Your task to perform on an android device: Go to Yahoo.com Image 0: 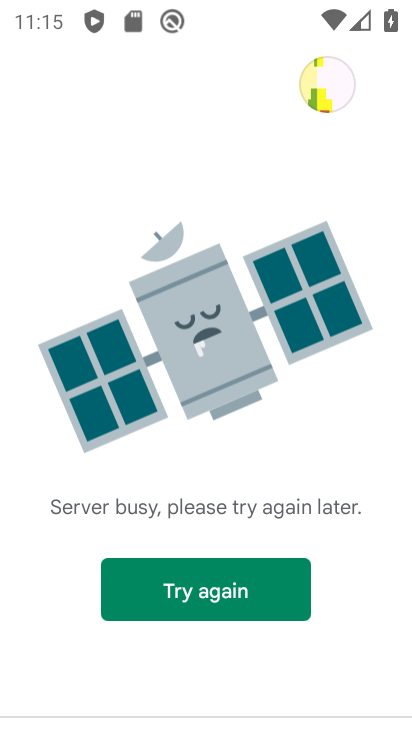
Step 0: press home button
Your task to perform on an android device: Go to Yahoo.com Image 1: 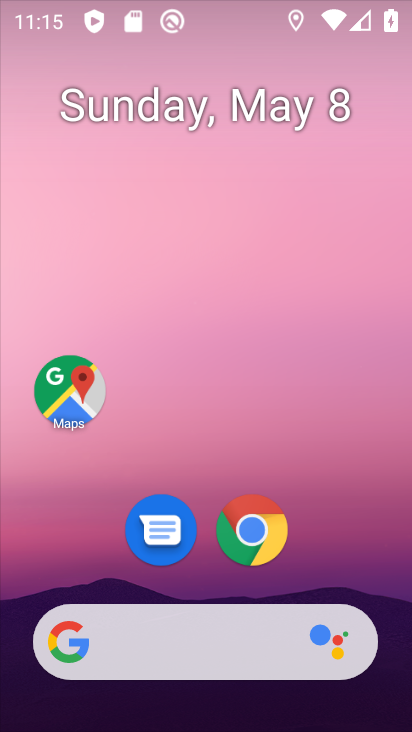
Step 1: drag from (274, 667) to (264, 38)
Your task to perform on an android device: Go to Yahoo.com Image 2: 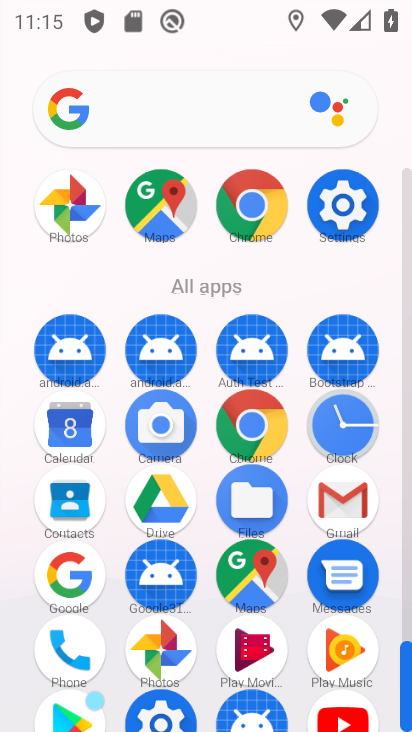
Step 2: click (266, 416)
Your task to perform on an android device: Go to Yahoo.com Image 3: 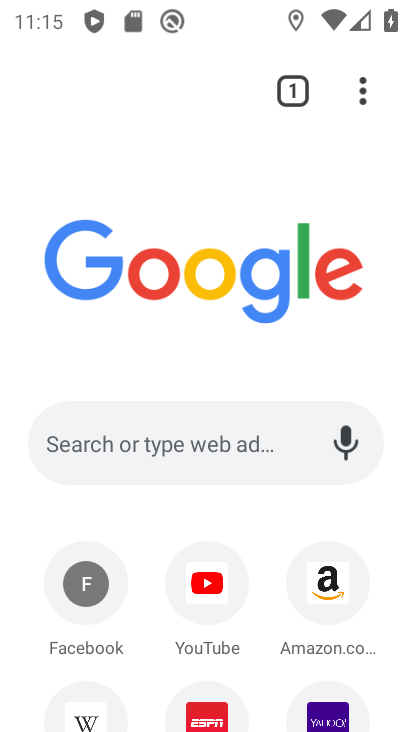
Step 3: drag from (280, 624) to (296, 450)
Your task to perform on an android device: Go to Yahoo.com Image 4: 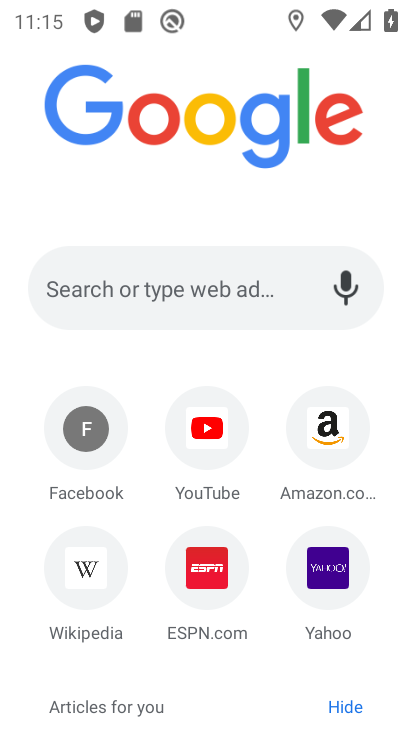
Step 4: click (335, 562)
Your task to perform on an android device: Go to Yahoo.com Image 5: 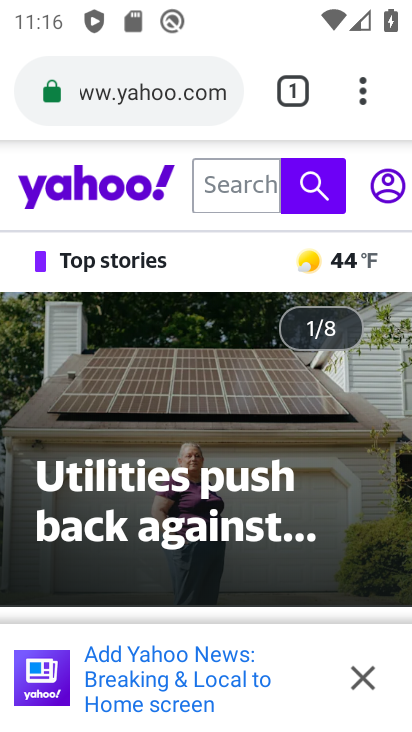
Step 5: task complete